Your task to perform on an android device: Open the calendar and show me this week's events Image 0: 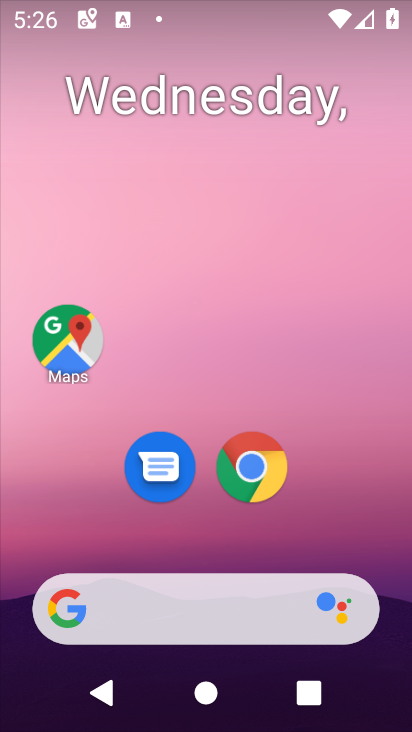
Step 0: drag from (302, 534) to (176, 24)
Your task to perform on an android device: Open the calendar and show me this week's events Image 1: 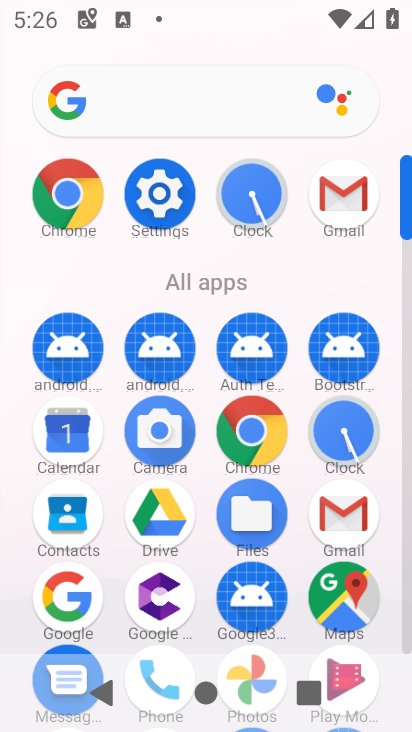
Step 1: click (80, 437)
Your task to perform on an android device: Open the calendar and show me this week's events Image 2: 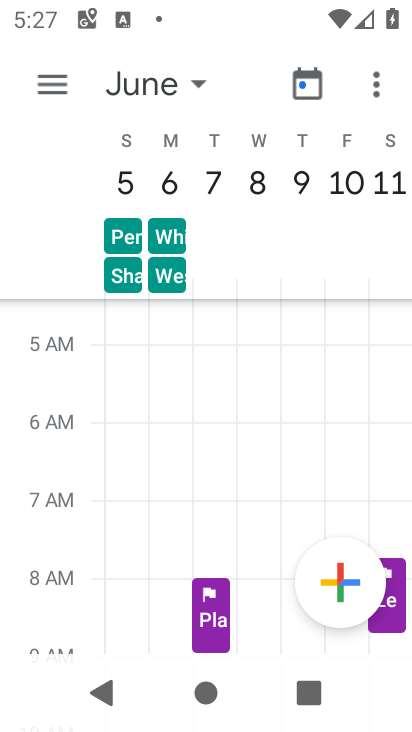
Step 2: click (166, 80)
Your task to perform on an android device: Open the calendar and show me this week's events Image 3: 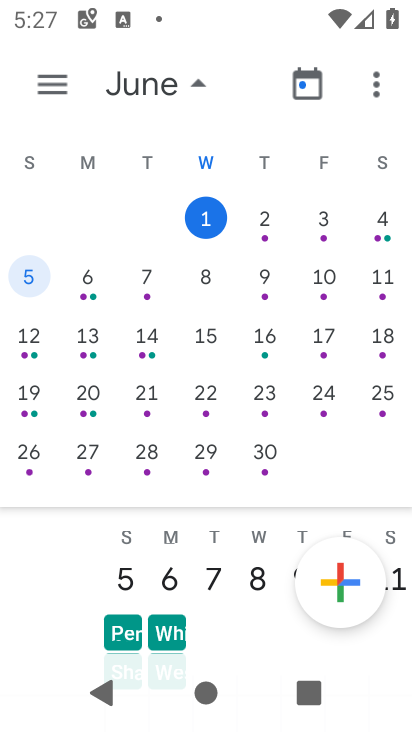
Step 3: click (194, 214)
Your task to perform on an android device: Open the calendar and show me this week's events Image 4: 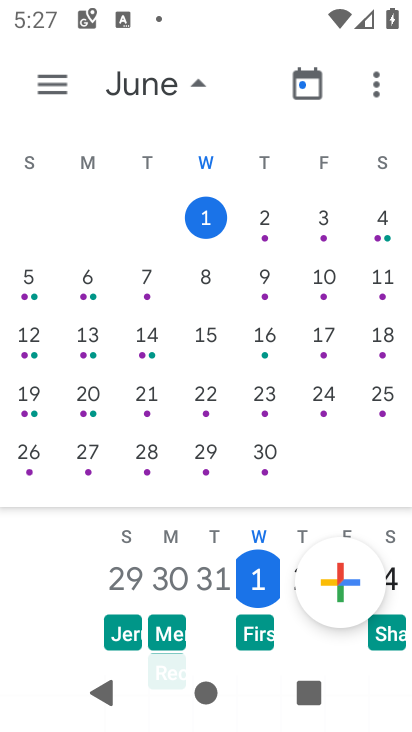
Step 4: task complete